Your task to perform on an android device: Open Android settings Image 0: 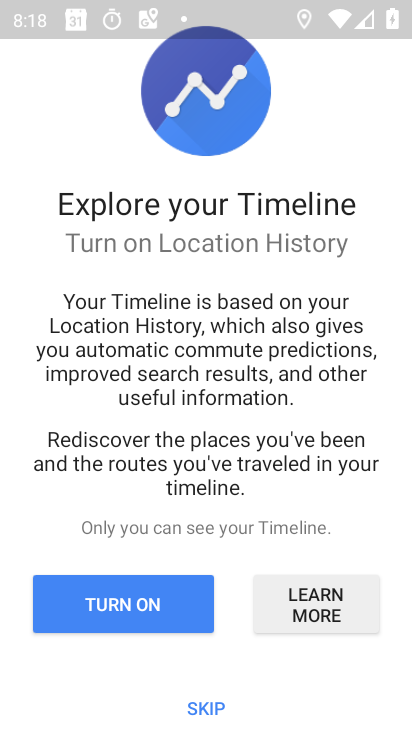
Step 0: press home button
Your task to perform on an android device: Open Android settings Image 1: 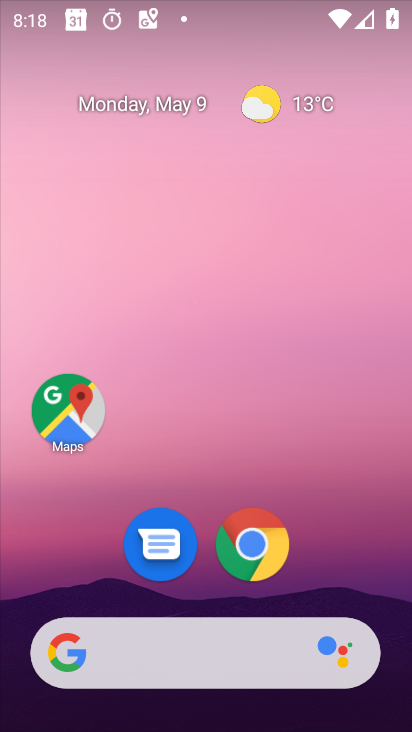
Step 1: drag from (358, 504) to (306, 52)
Your task to perform on an android device: Open Android settings Image 2: 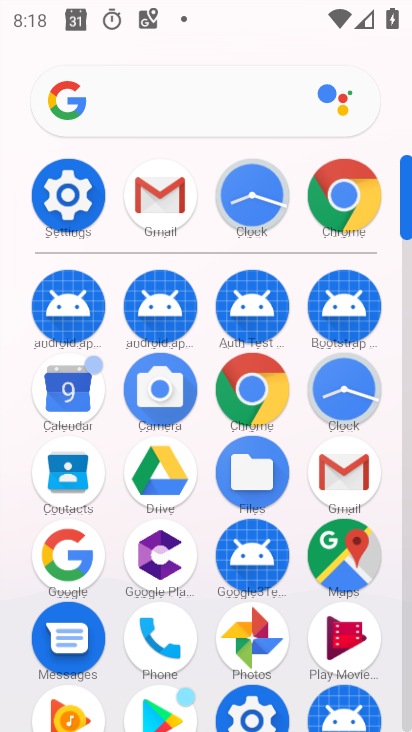
Step 2: click (75, 221)
Your task to perform on an android device: Open Android settings Image 3: 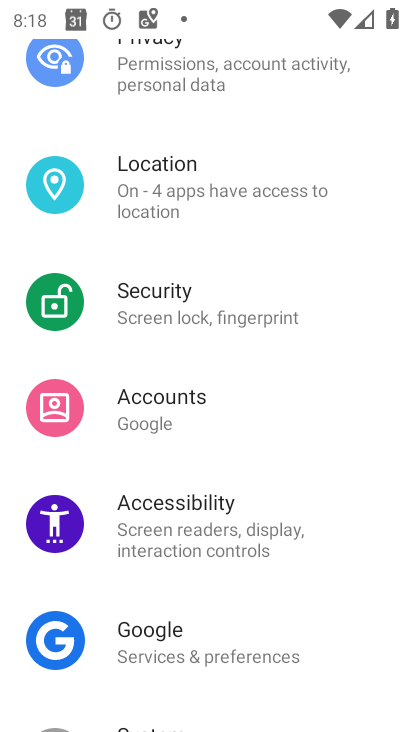
Step 3: task complete